Your task to perform on an android device: Open Google Chrome and click the shortcut for Amazon.com Image 0: 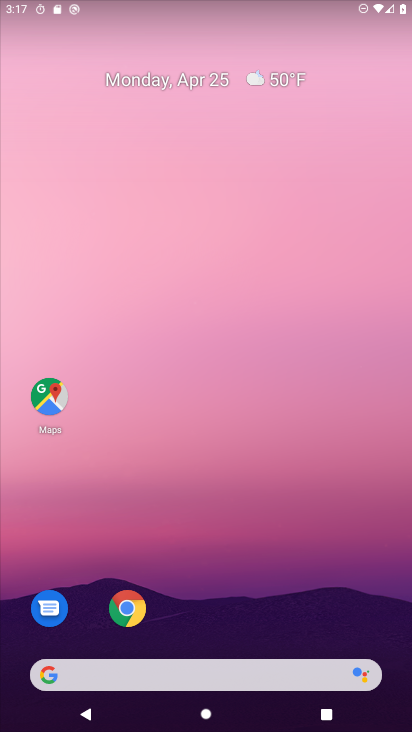
Step 0: click (149, 613)
Your task to perform on an android device: Open Google Chrome and click the shortcut for Amazon.com Image 1: 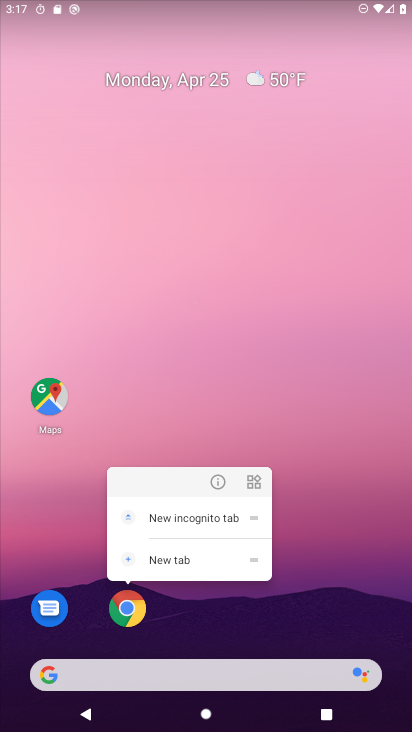
Step 1: click (149, 613)
Your task to perform on an android device: Open Google Chrome and click the shortcut for Amazon.com Image 2: 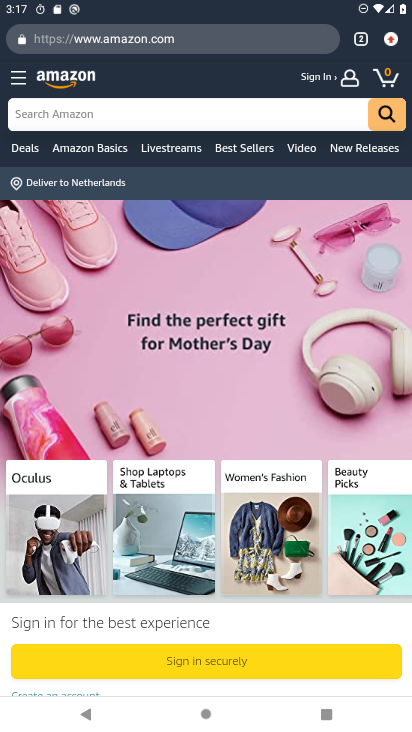
Step 2: task complete